Your task to perform on an android device: Go to calendar. Show me events next week Image 0: 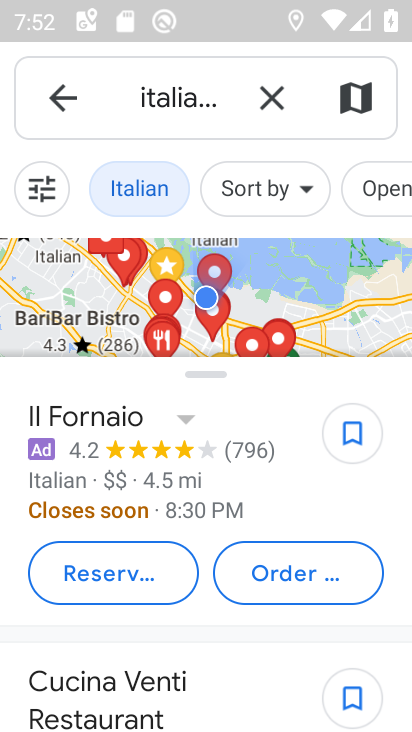
Step 0: press home button
Your task to perform on an android device: Go to calendar. Show me events next week Image 1: 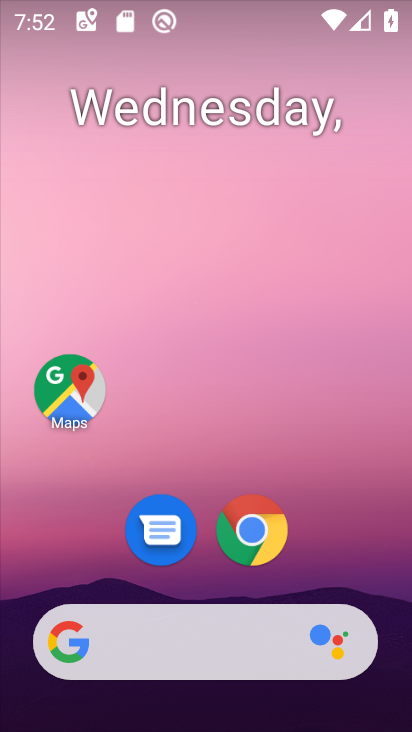
Step 1: drag from (397, 619) to (359, 17)
Your task to perform on an android device: Go to calendar. Show me events next week Image 2: 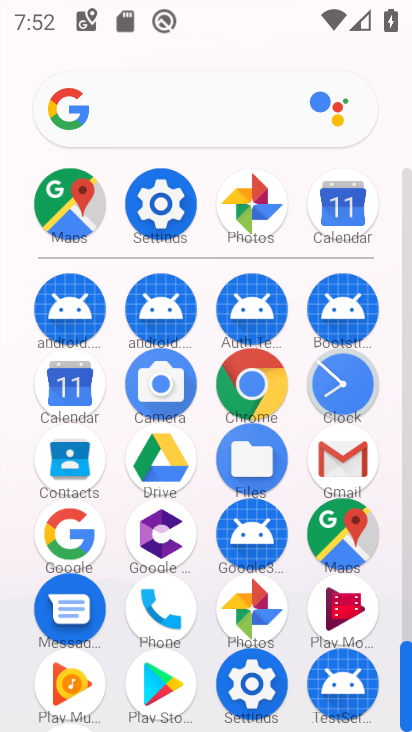
Step 2: click (337, 212)
Your task to perform on an android device: Go to calendar. Show me events next week Image 3: 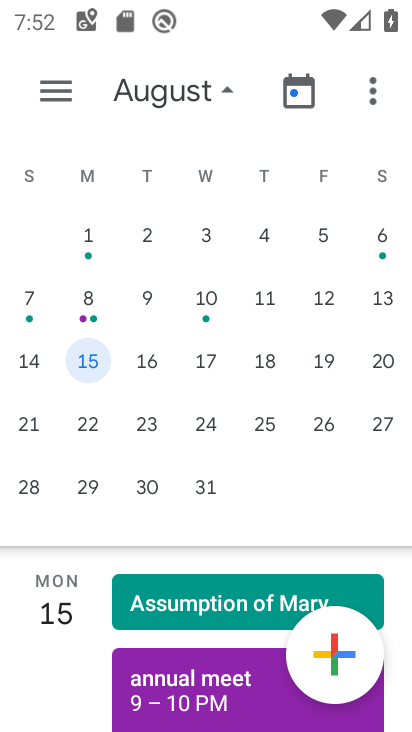
Step 3: click (93, 298)
Your task to perform on an android device: Go to calendar. Show me events next week Image 4: 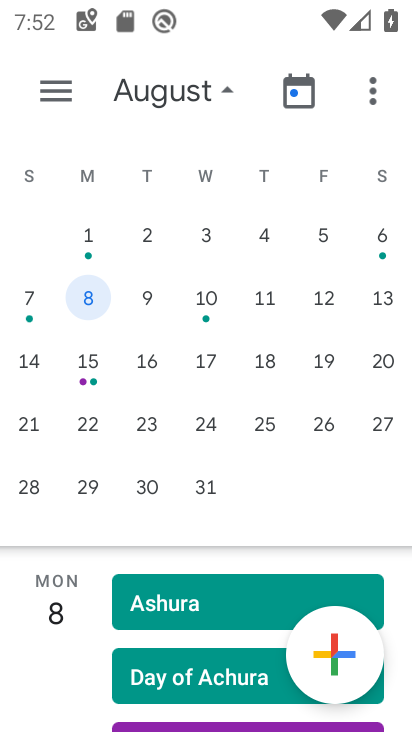
Step 4: click (47, 96)
Your task to perform on an android device: Go to calendar. Show me events next week Image 5: 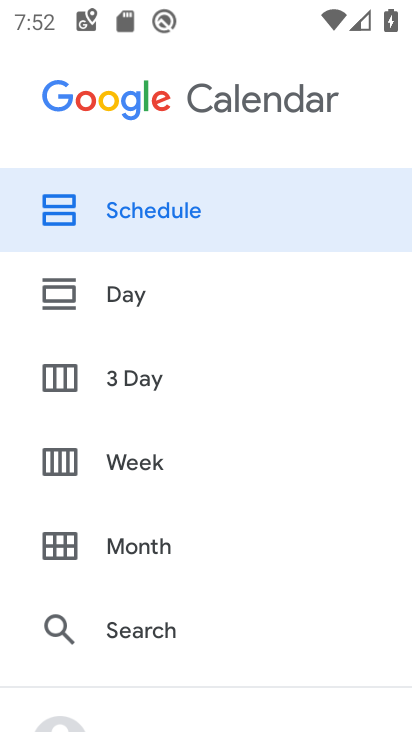
Step 5: click (179, 194)
Your task to perform on an android device: Go to calendar. Show me events next week Image 6: 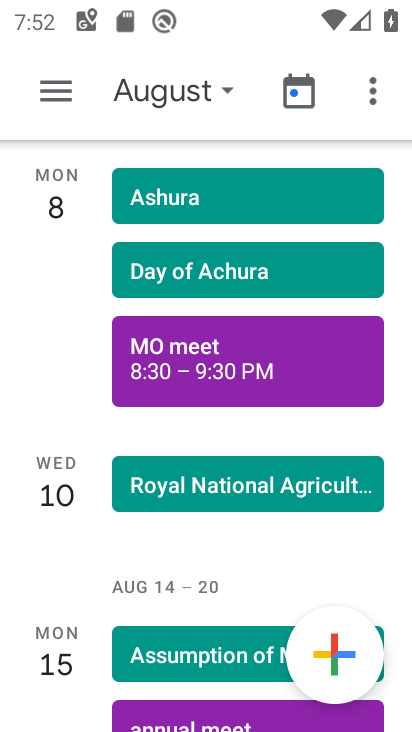
Step 6: task complete